Your task to perform on an android device: What's the weather? Image 0: 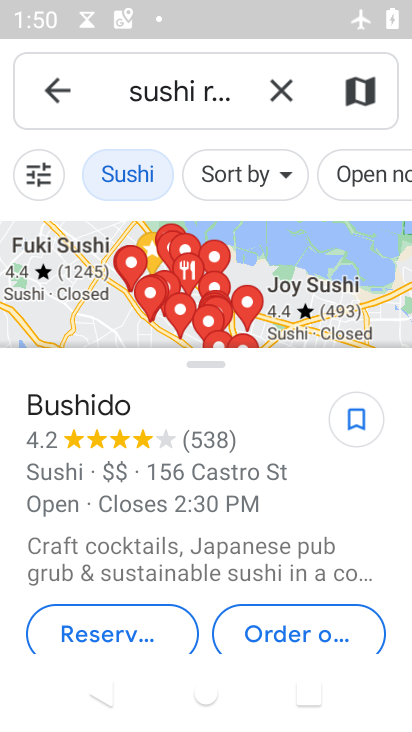
Step 0: press home button
Your task to perform on an android device: What's the weather? Image 1: 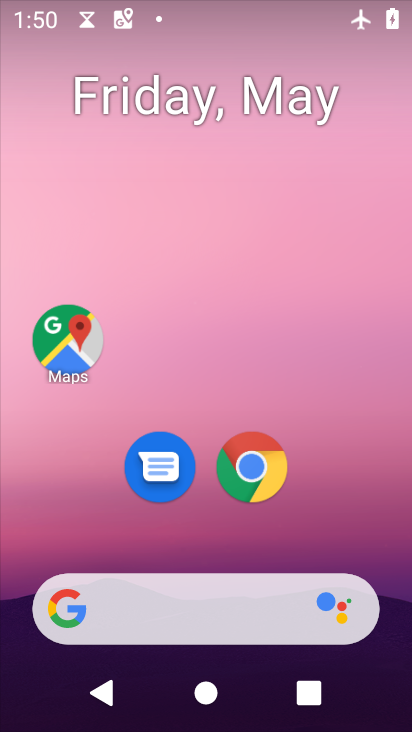
Step 1: drag from (343, 531) to (211, 84)
Your task to perform on an android device: What's the weather? Image 2: 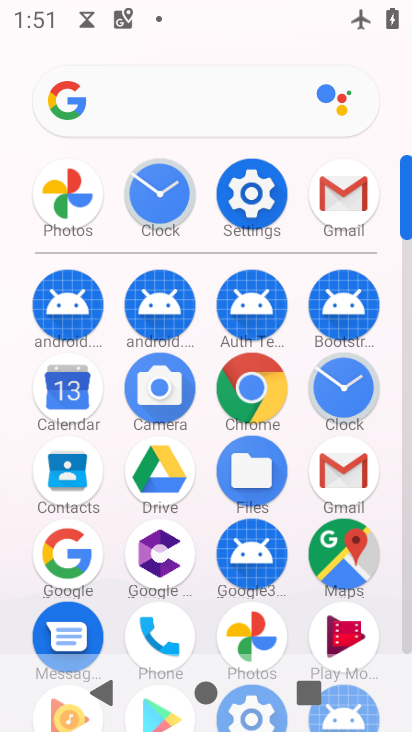
Step 2: click (58, 551)
Your task to perform on an android device: What's the weather? Image 3: 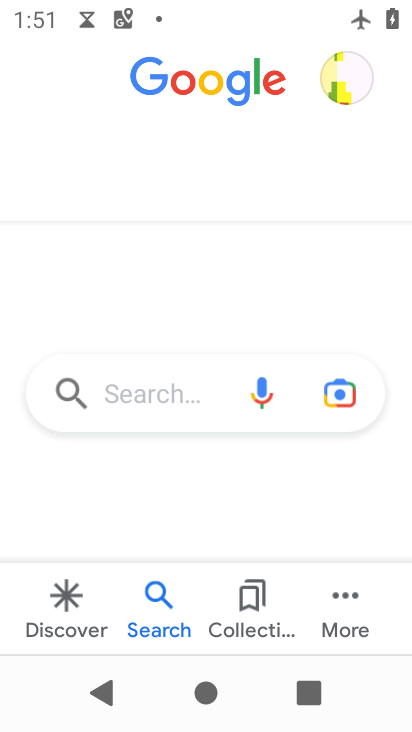
Step 3: click (145, 380)
Your task to perform on an android device: What's the weather? Image 4: 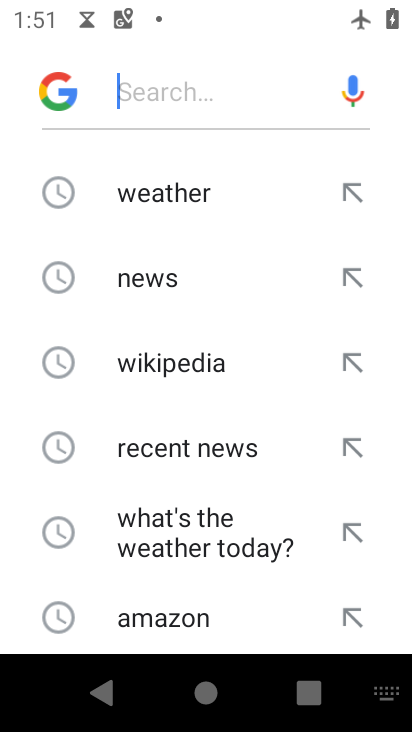
Step 4: click (171, 190)
Your task to perform on an android device: What's the weather? Image 5: 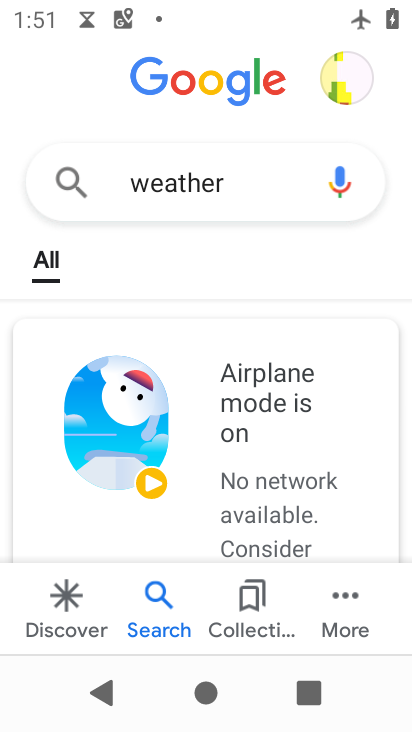
Step 5: task complete